Your task to perform on an android device: turn off notifications settings in the gmail app Image 0: 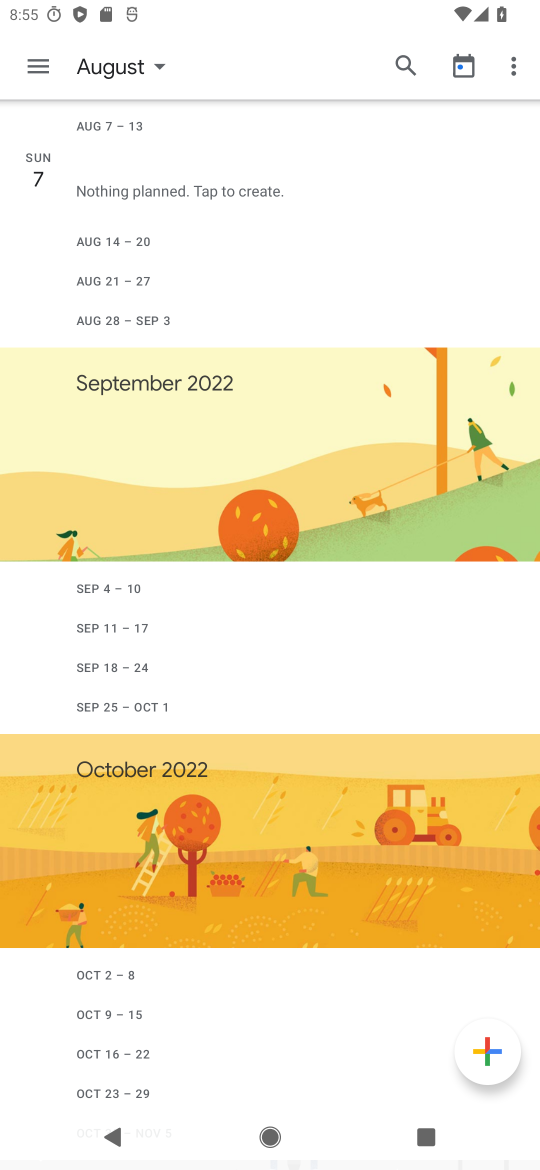
Step 0: press home button
Your task to perform on an android device: turn off notifications settings in the gmail app Image 1: 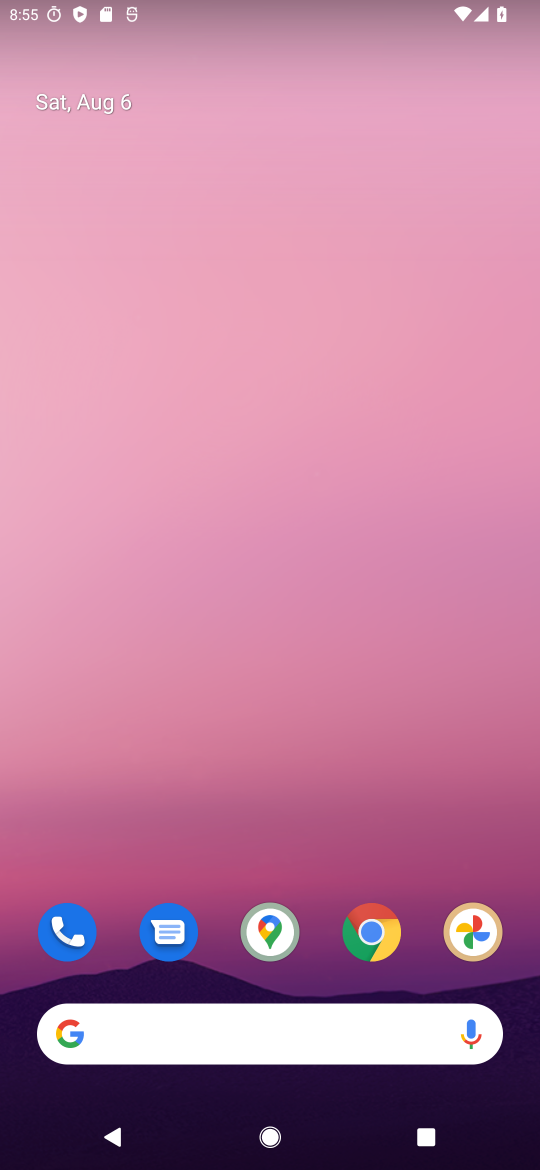
Step 1: drag from (263, 1029) to (381, 130)
Your task to perform on an android device: turn off notifications settings in the gmail app Image 2: 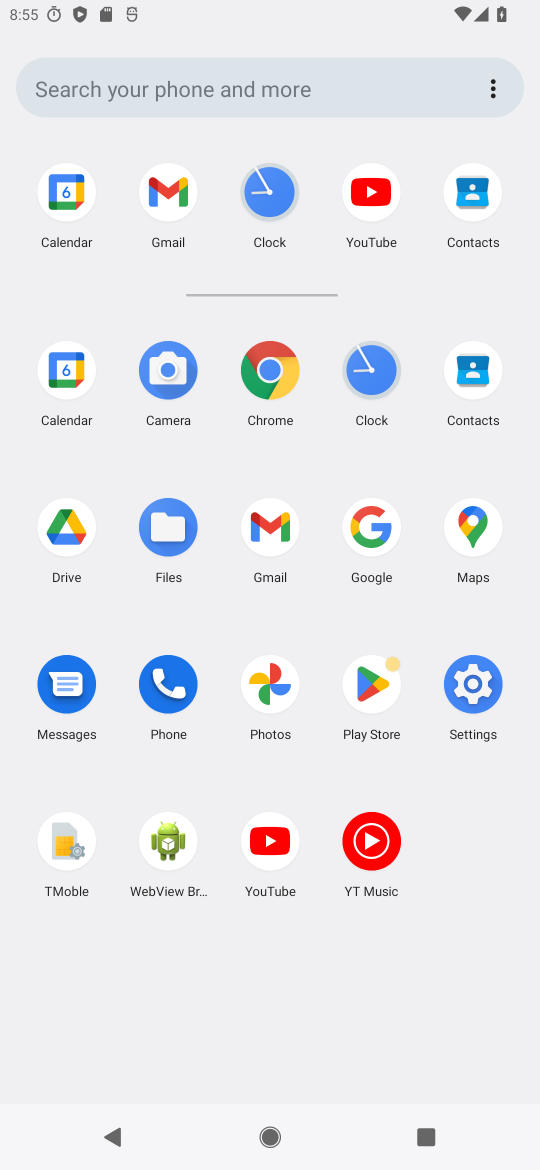
Step 2: click (172, 187)
Your task to perform on an android device: turn off notifications settings in the gmail app Image 3: 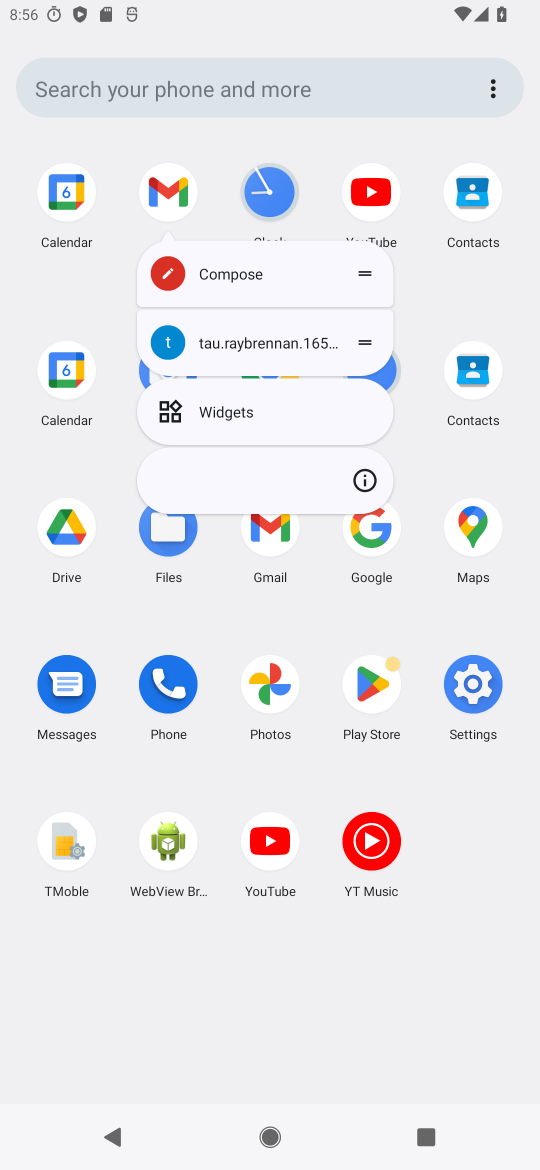
Step 3: click (172, 185)
Your task to perform on an android device: turn off notifications settings in the gmail app Image 4: 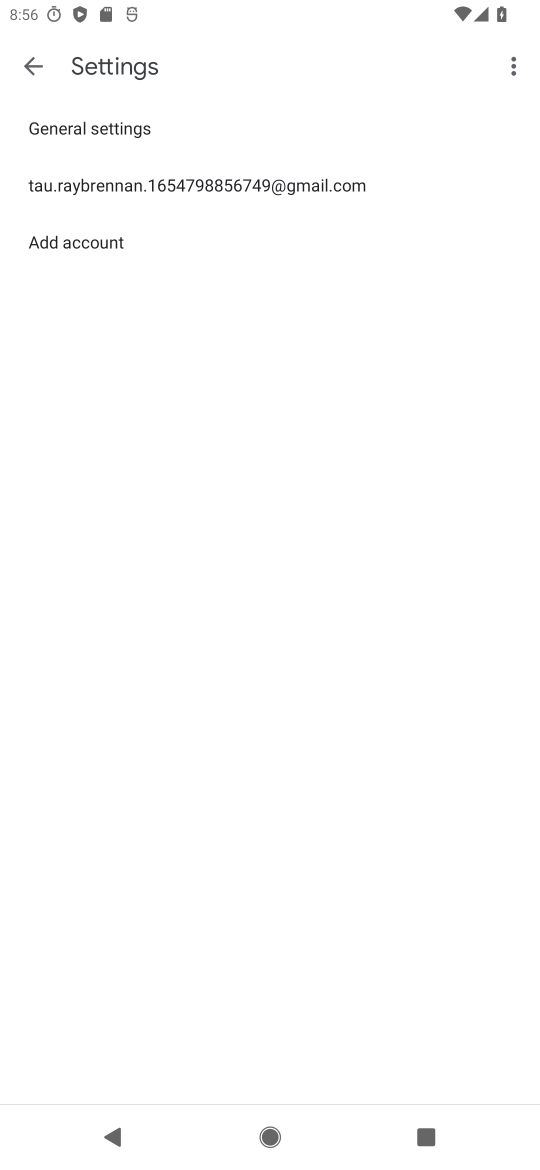
Step 4: click (139, 183)
Your task to perform on an android device: turn off notifications settings in the gmail app Image 5: 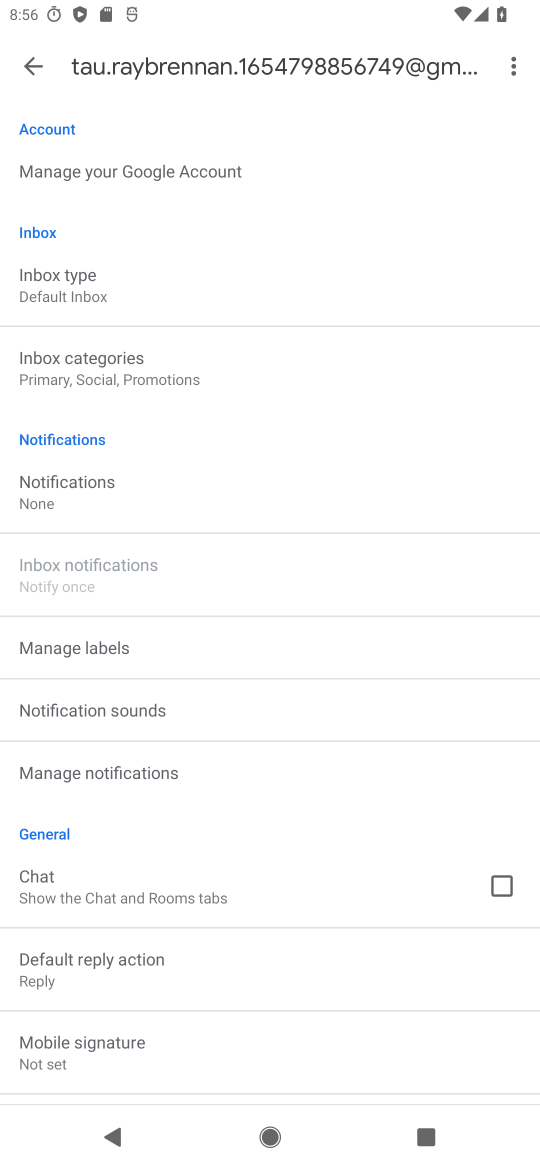
Step 5: click (71, 493)
Your task to perform on an android device: turn off notifications settings in the gmail app Image 6: 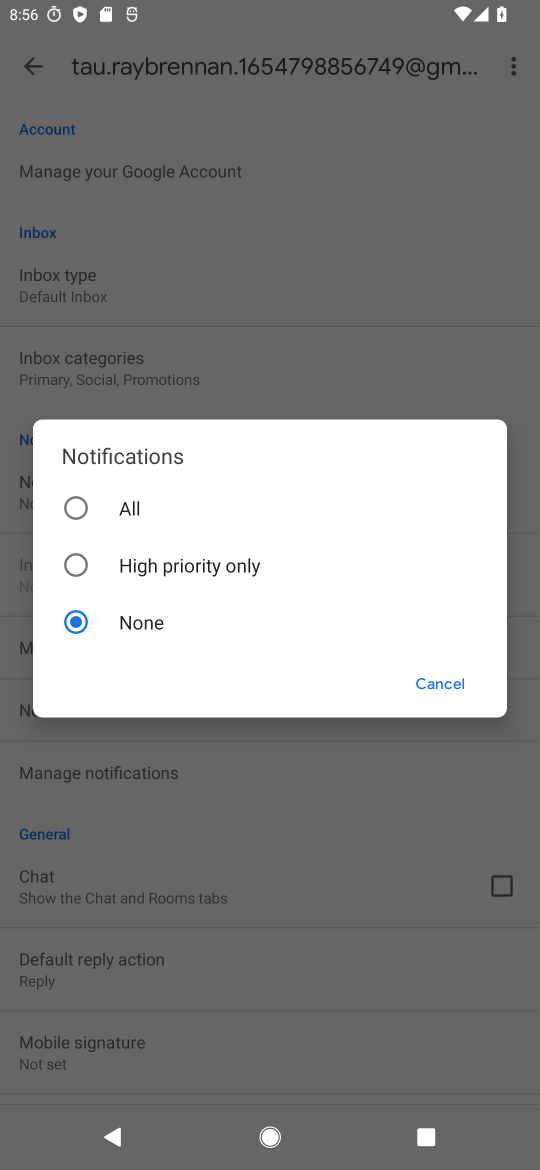
Step 6: task complete